Your task to perform on an android device: open chrome and create a bookmark for the current page Image 0: 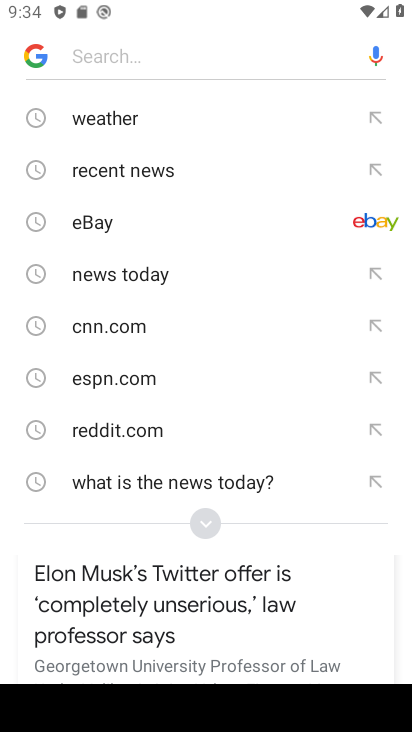
Step 0: press home button
Your task to perform on an android device: open chrome and create a bookmark for the current page Image 1: 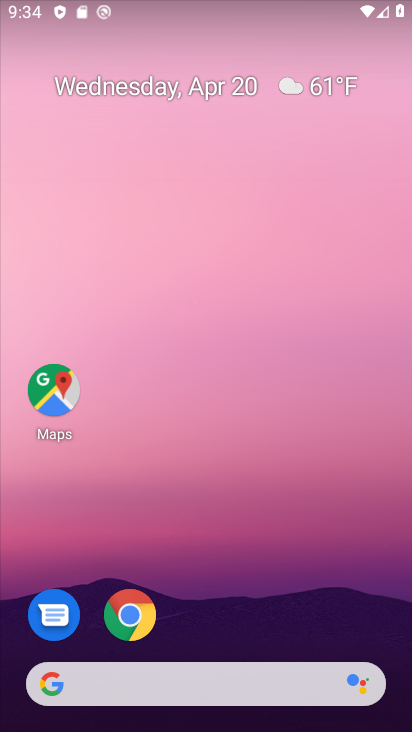
Step 1: drag from (275, 630) to (234, 8)
Your task to perform on an android device: open chrome and create a bookmark for the current page Image 2: 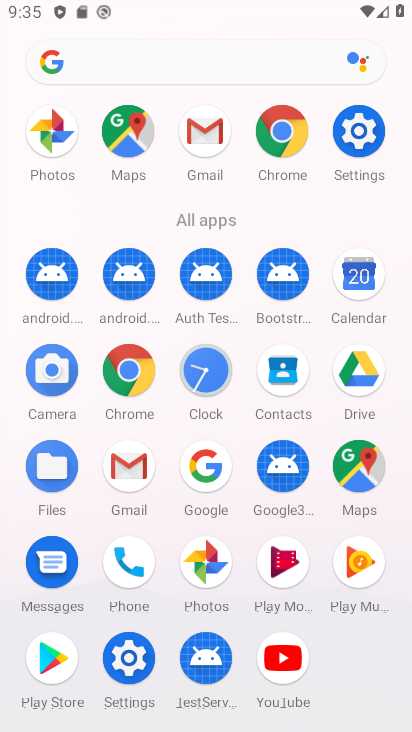
Step 2: click (279, 128)
Your task to perform on an android device: open chrome and create a bookmark for the current page Image 3: 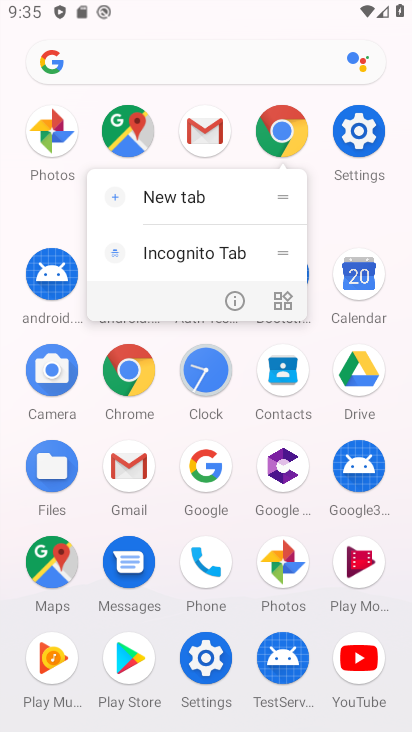
Step 3: click (279, 128)
Your task to perform on an android device: open chrome and create a bookmark for the current page Image 4: 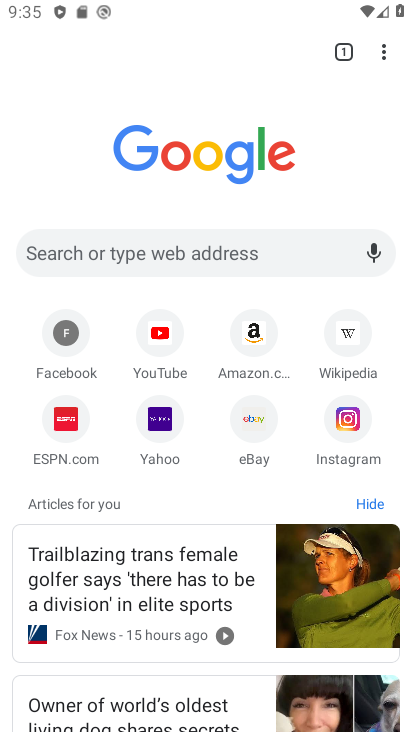
Step 4: click (74, 433)
Your task to perform on an android device: open chrome and create a bookmark for the current page Image 5: 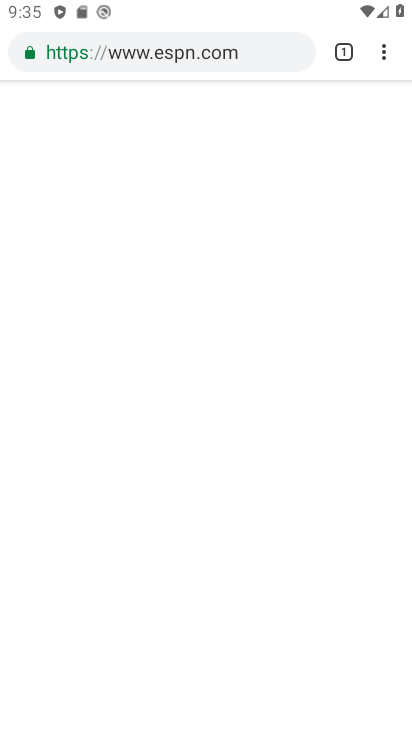
Step 5: drag from (383, 58) to (234, 57)
Your task to perform on an android device: open chrome and create a bookmark for the current page Image 6: 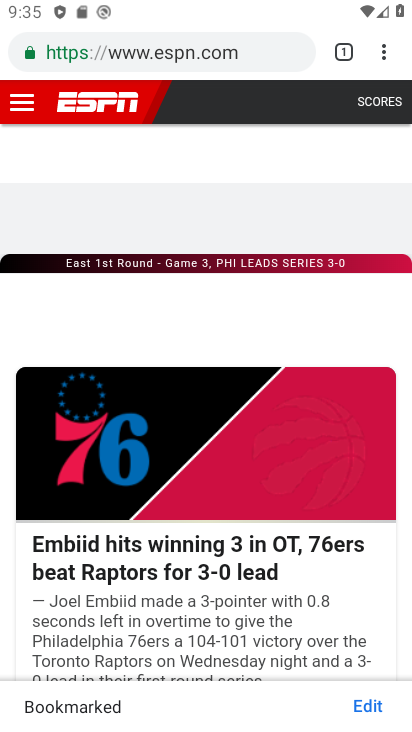
Step 6: click (385, 54)
Your task to perform on an android device: open chrome and create a bookmark for the current page Image 7: 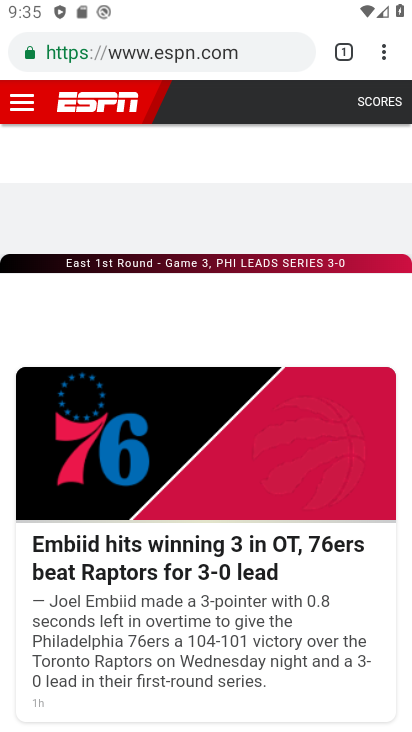
Step 7: task complete